Your task to perform on an android device: open a bookmark in the chrome app Image 0: 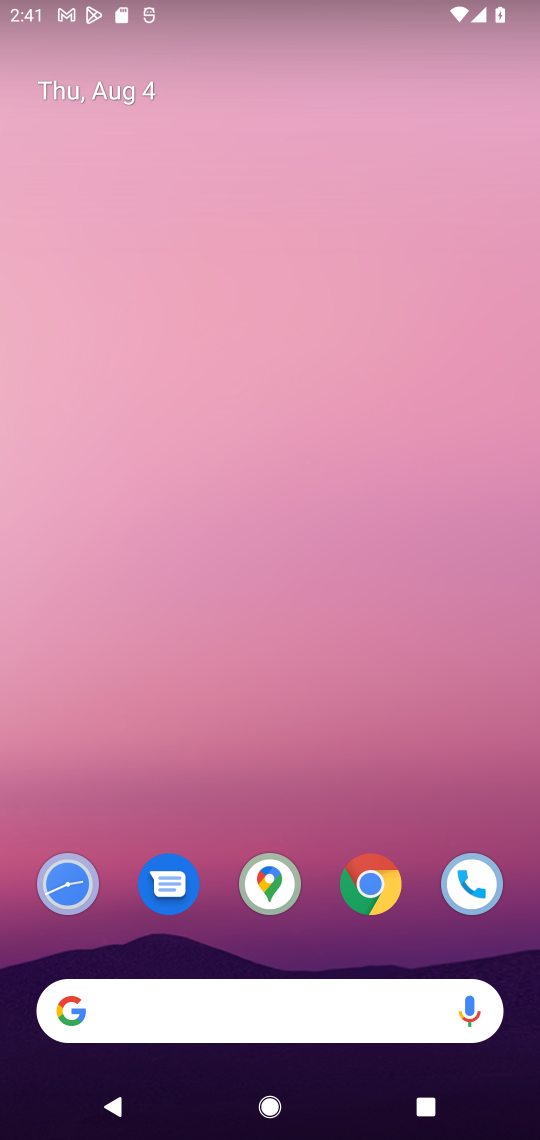
Step 0: click (367, 865)
Your task to perform on an android device: open a bookmark in the chrome app Image 1: 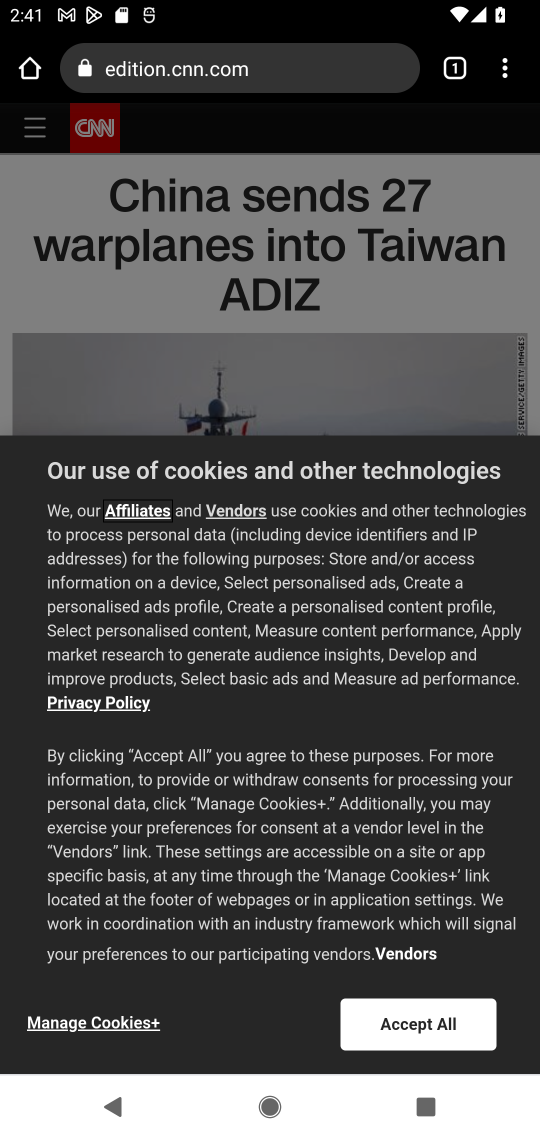
Step 1: click (502, 67)
Your task to perform on an android device: open a bookmark in the chrome app Image 2: 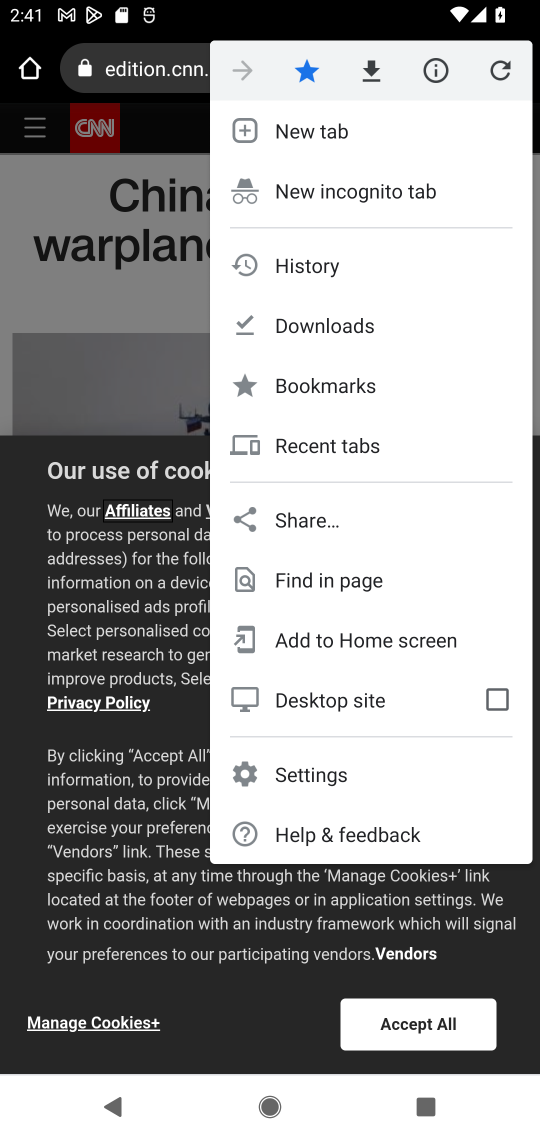
Step 2: click (358, 381)
Your task to perform on an android device: open a bookmark in the chrome app Image 3: 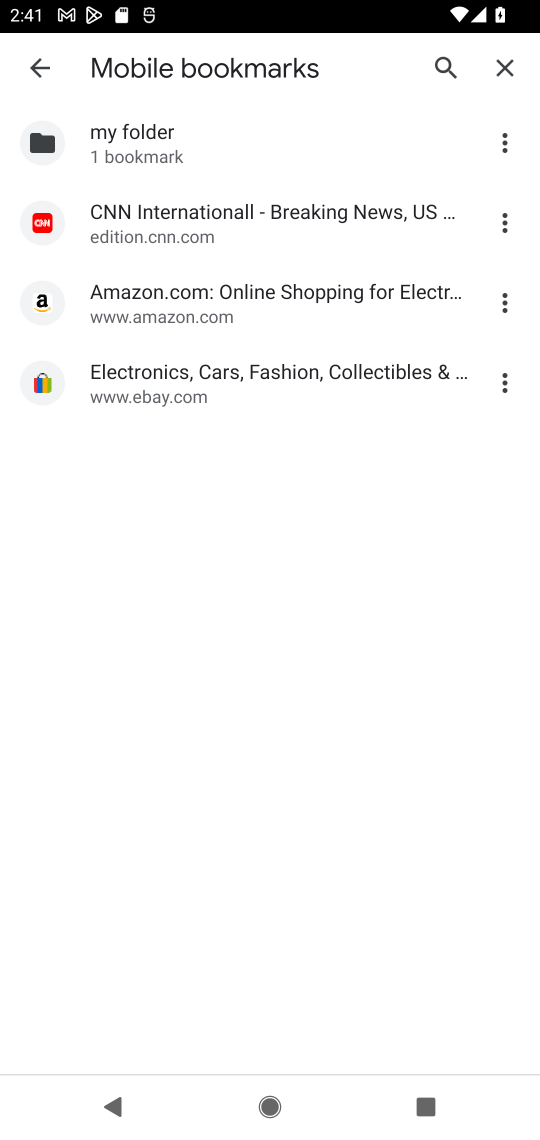
Step 3: click (331, 233)
Your task to perform on an android device: open a bookmark in the chrome app Image 4: 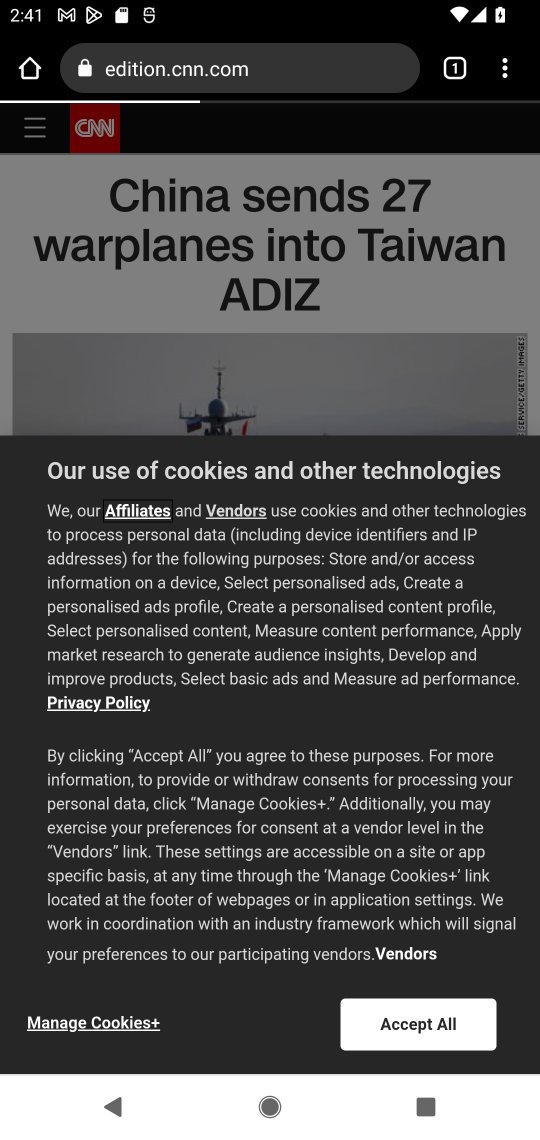
Step 4: task complete